Your task to perform on an android device: change the clock display to analog Image 0: 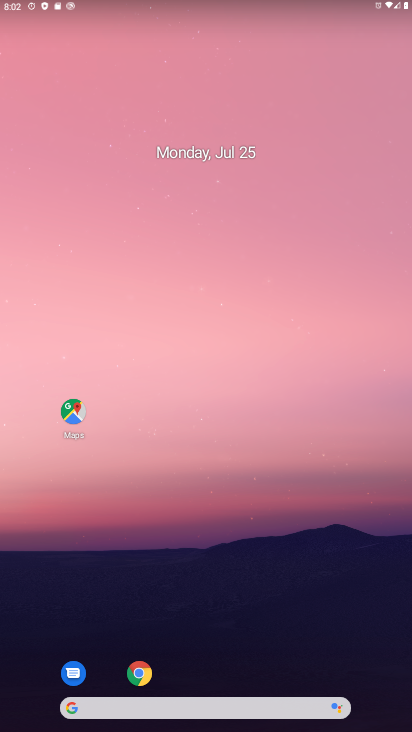
Step 0: drag from (325, 662) to (180, 40)
Your task to perform on an android device: change the clock display to analog Image 1: 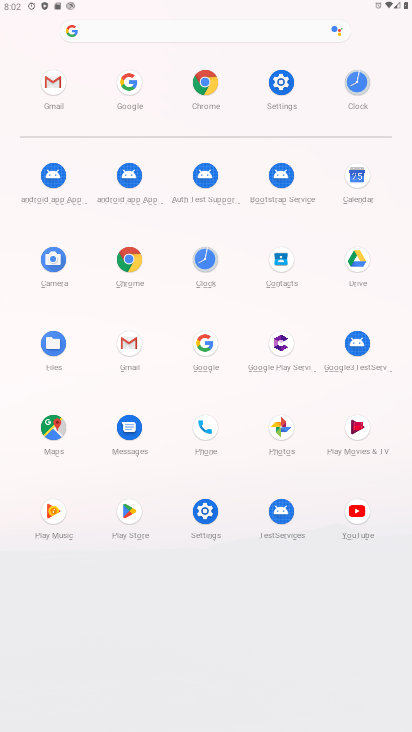
Step 1: click (204, 261)
Your task to perform on an android device: change the clock display to analog Image 2: 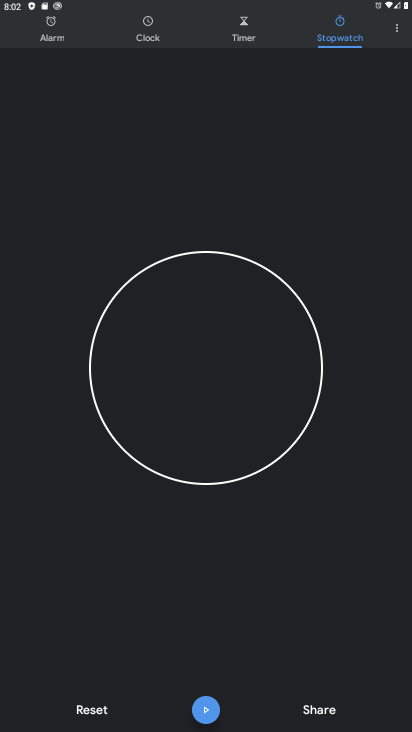
Step 2: click (397, 28)
Your task to perform on an android device: change the clock display to analog Image 3: 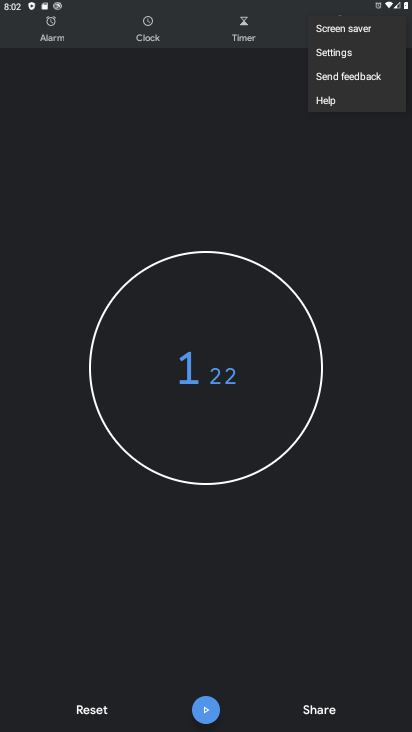
Step 3: click (338, 57)
Your task to perform on an android device: change the clock display to analog Image 4: 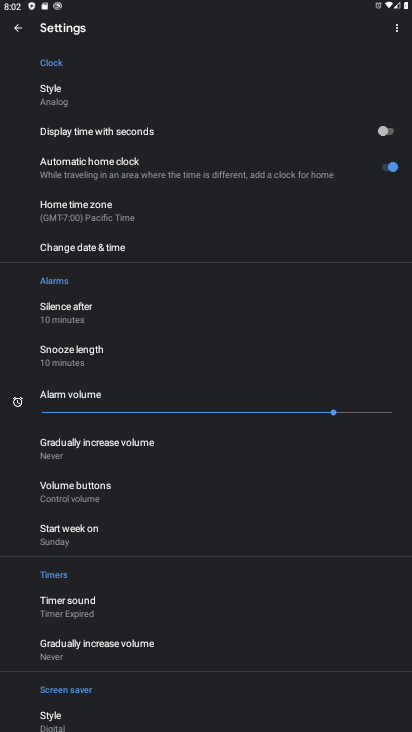
Step 4: click (61, 91)
Your task to perform on an android device: change the clock display to analog Image 5: 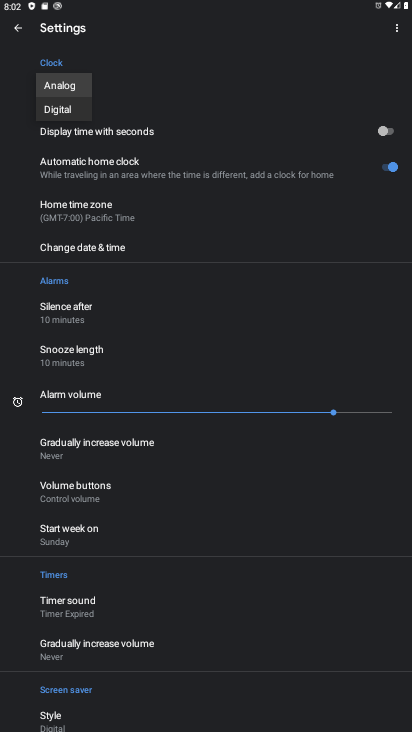
Step 5: click (58, 82)
Your task to perform on an android device: change the clock display to analog Image 6: 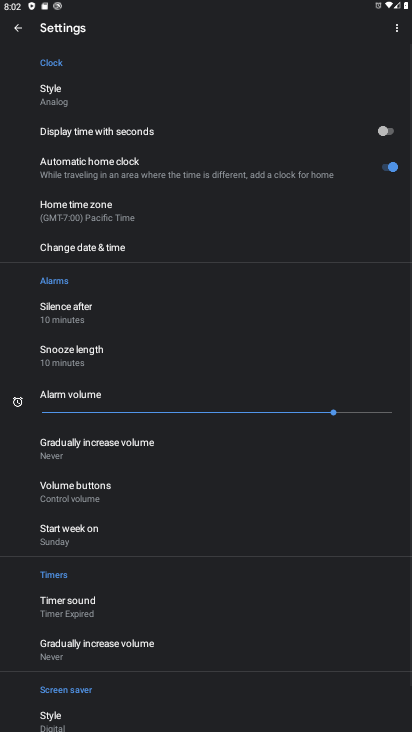
Step 6: task complete